Your task to perform on an android device: Search for sushi restaurants on Maps Image 0: 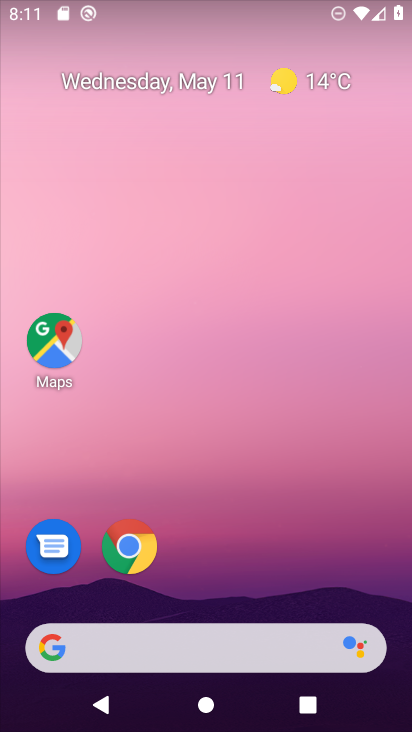
Step 0: click (56, 338)
Your task to perform on an android device: Search for sushi restaurants on Maps Image 1: 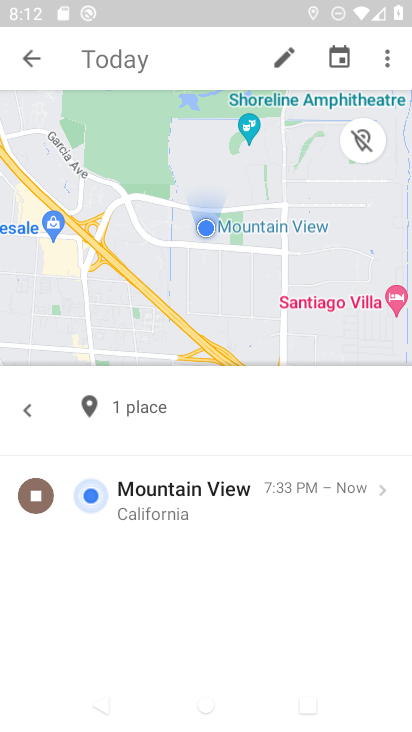
Step 1: click (35, 58)
Your task to perform on an android device: Search for sushi restaurants on Maps Image 2: 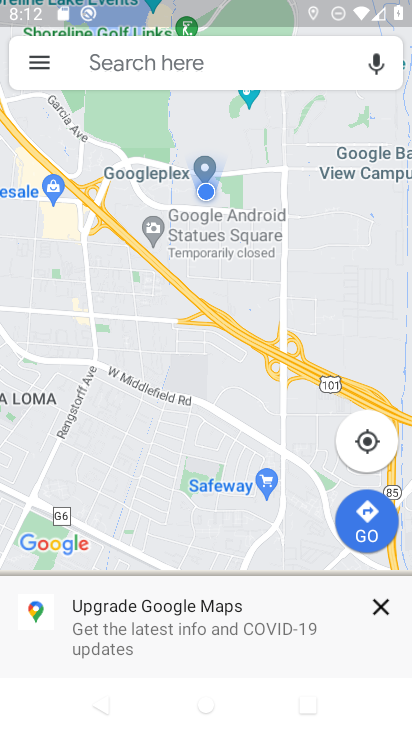
Step 2: click (218, 76)
Your task to perform on an android device: Search for sushi restaurants on Maps Image 3: 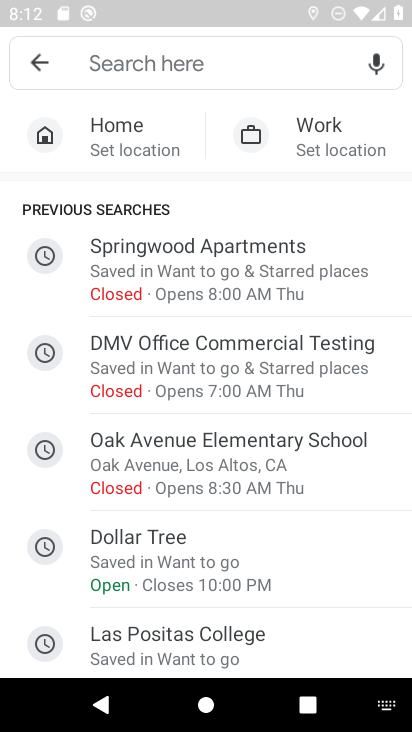
Step 3: type "sushi restaurants"
Your task to perform on an android device: Search for sushi restaurants on Maps Image 4: 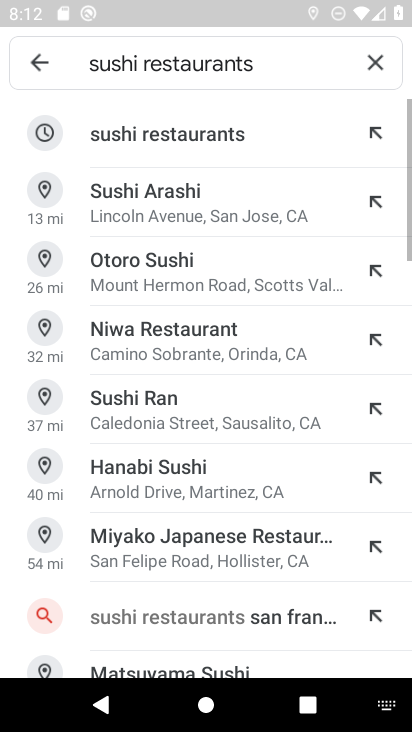
Step 4: click (116, 131)
Your task to perform on an android device: Search for sushi restaurants on Maps Image 5: 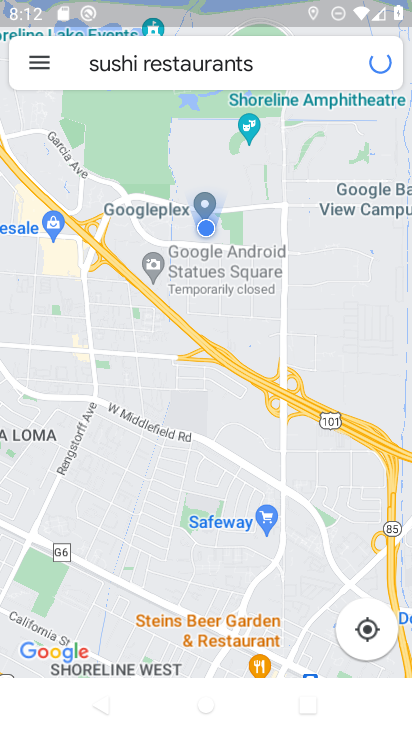
Step 5: task complete